Your task to perform on an android device: check android version Image 0: 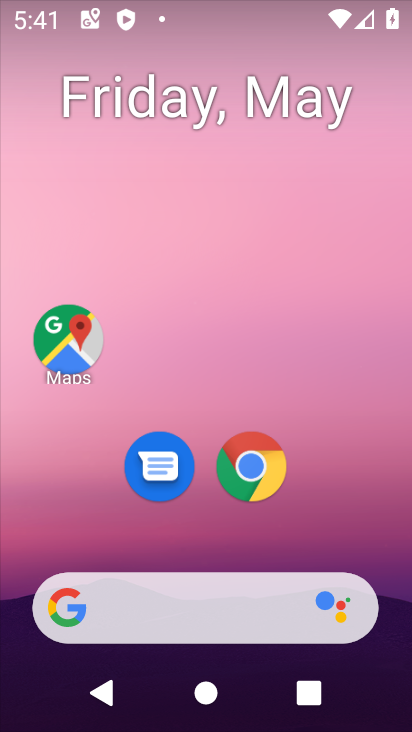
Step 0: drag from (338, 518) to (253, 38)
Your task to perform on an android device: check android version Image 1: 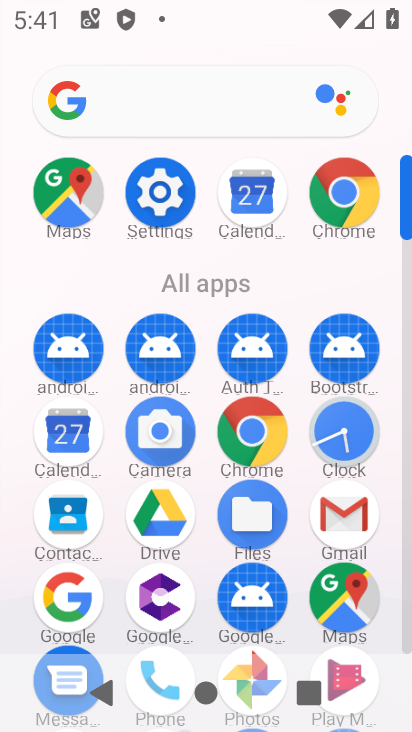
Step 1: drag from (18, 545) to (31, 254)
Your task to perform on an android device: check android version Image 2: 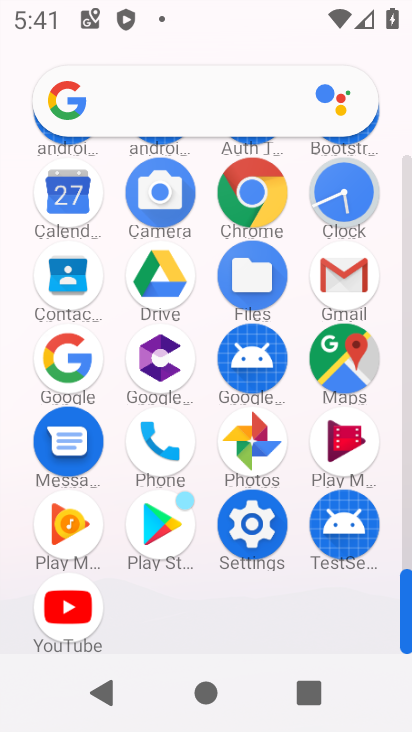
Step 2: click (248, 519)
Your task to perform on an android device: check android version Image 3: 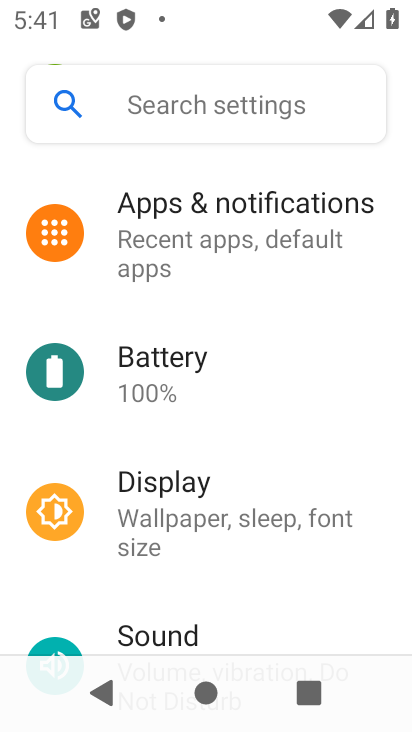
Step 3: drag from (286, 558) to (294, 171)
Your task to perform on an android device: check android version Image 4: 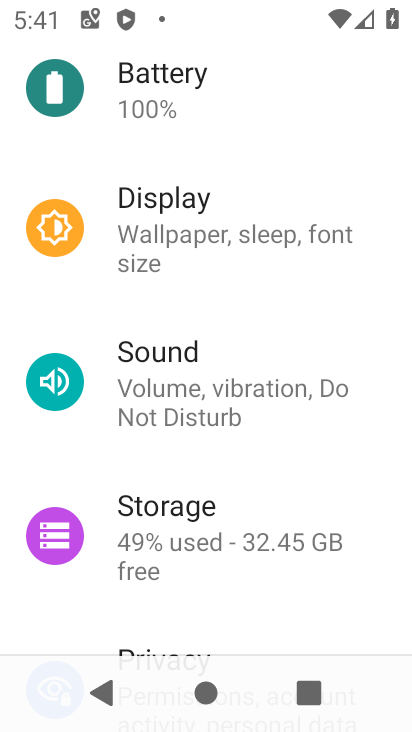
Step 4: drag from (251, 524) to (248, 66)
Your task to perform on an android device: check android version Image 5: 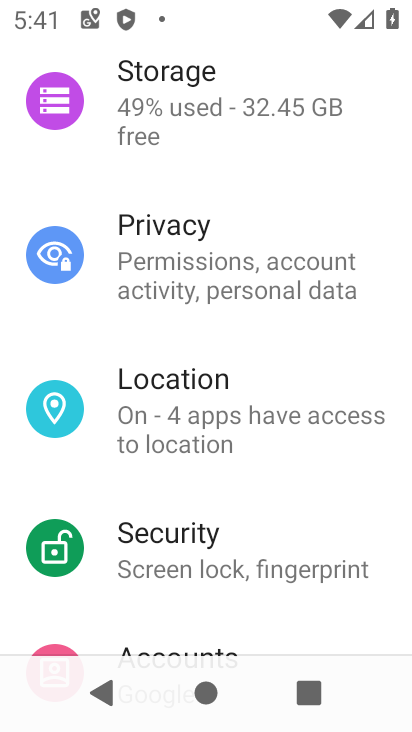
Step 5: drag from (258, 507) to (252, 93)
Your task to perform on an android device: check android version Image 6: 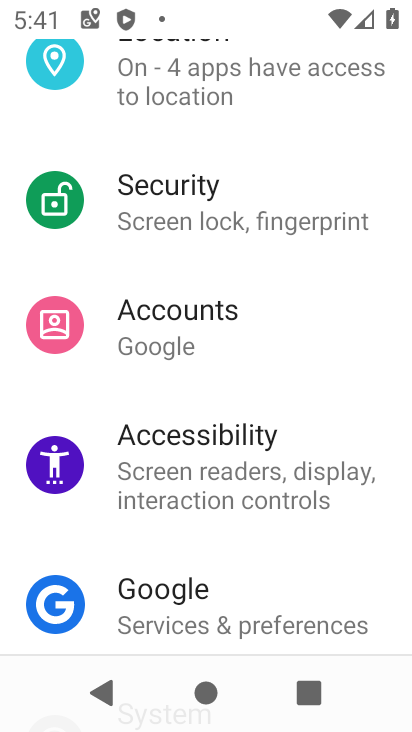
Step 6: drag from (215, 594) to (262, 106)
Your task to perform on an android device: check android version Image 7: 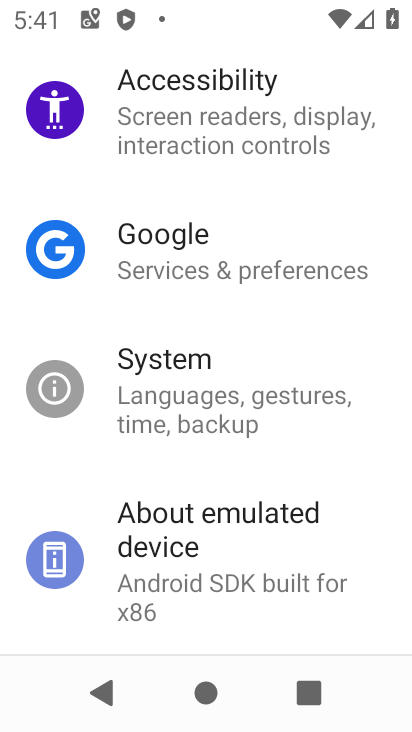
Step 7: drag from (265, 546) to (268, 132)
Your task to perform on an android device: check android version Image 8: 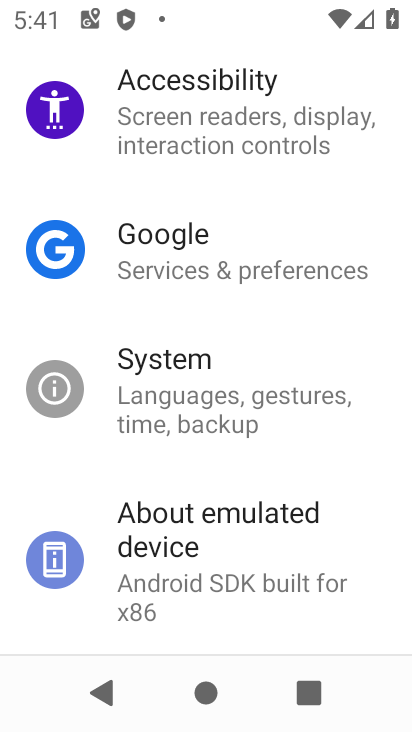
Step 8: click (222, 563)
Your task to perform on an android device: check android version Image 9: 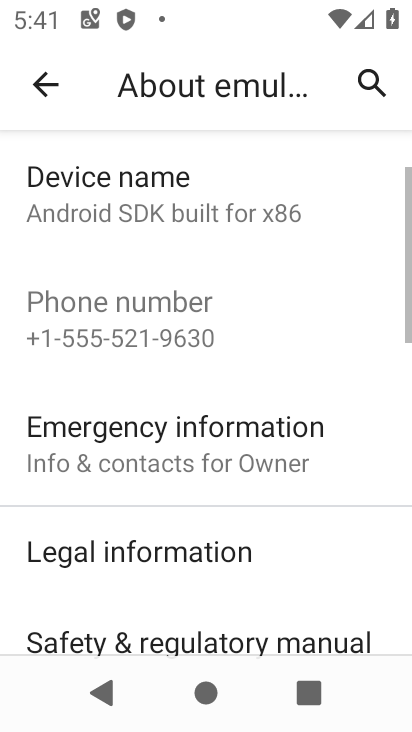
Step 9: task complete